Your task to perform on an android device: install app "Facebook Lite" Image 0: 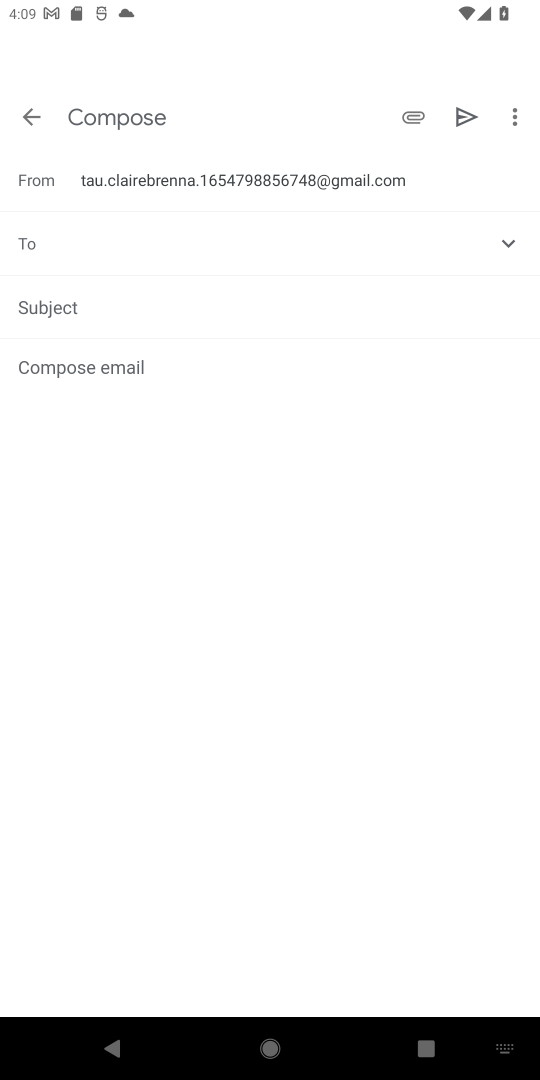
Step 0: press home button
Your task to perform on an android device: install app "Facebook Lite" Image 1: 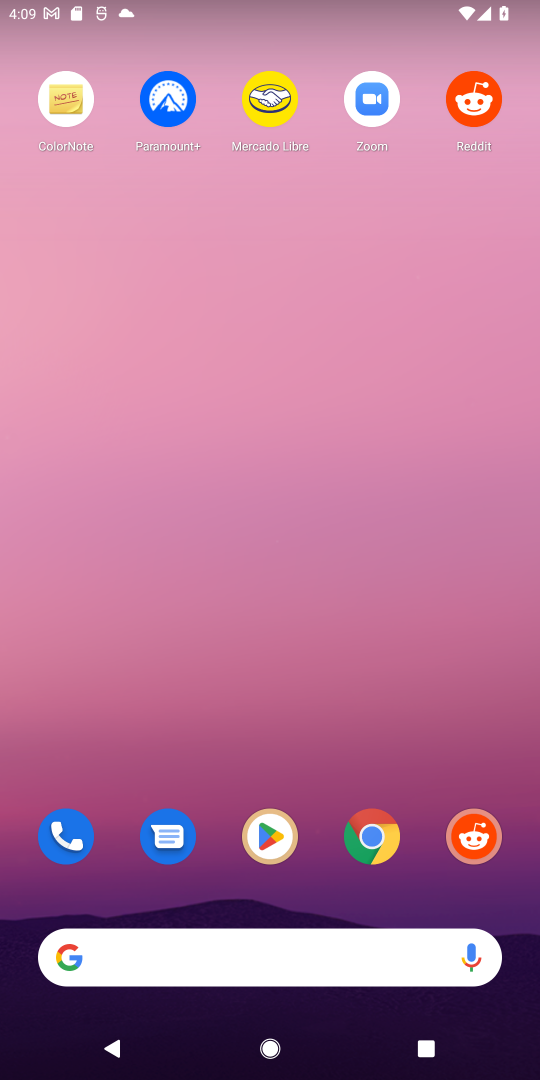
Step 1: drag from (224, 778) to (197, 214)
Your task to perform on an android device: install app "Facebook Lite" Image 2: 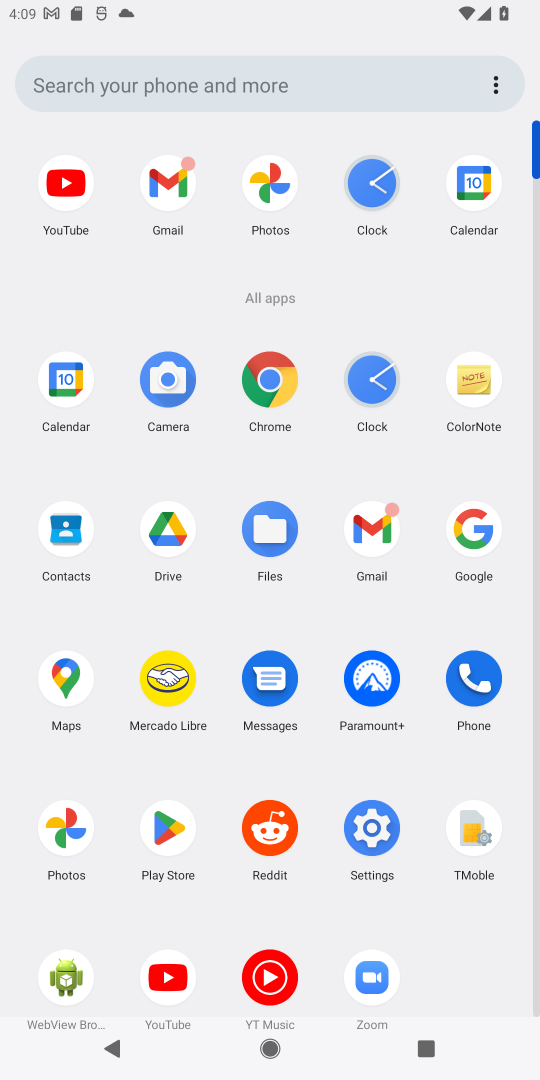
Step 2: click (153, 823)
Your task to perform on an android device: install app "Facebook Lite" Image 3: 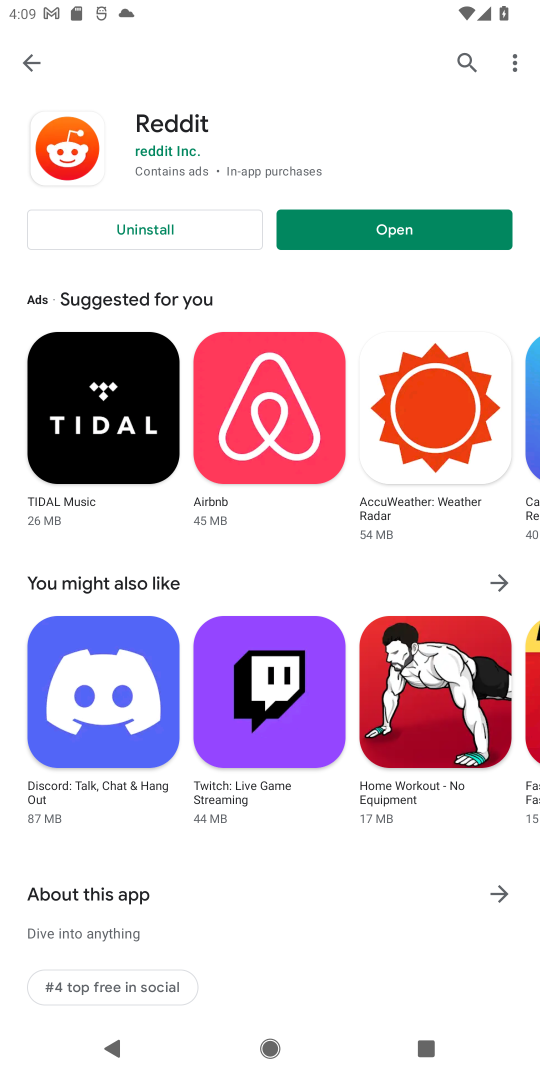
Step 3: click (22, 67)
Your task to perform on an android device: install app "Facebook Lite" Image 4: 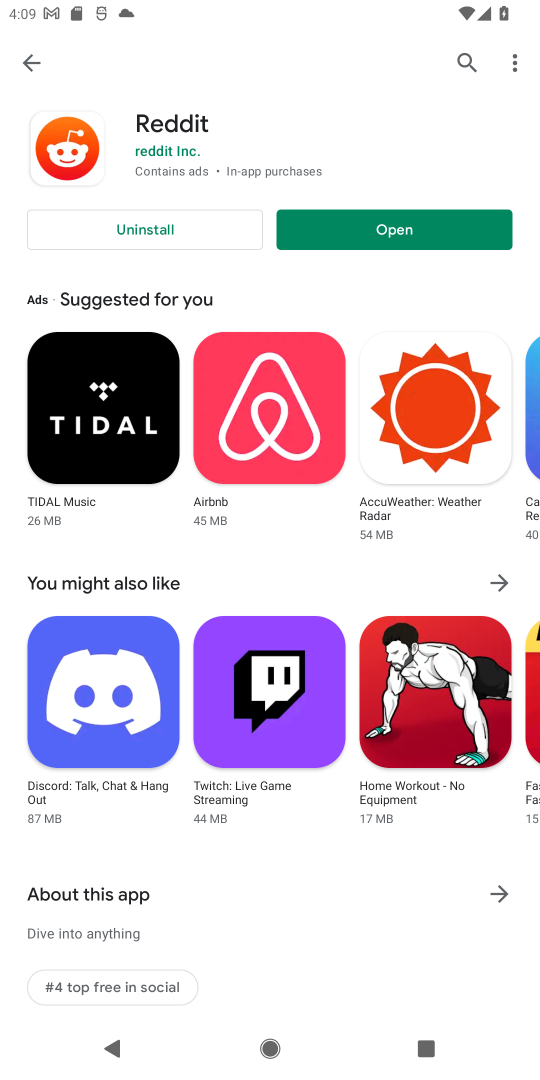
Step 4: click (22, 59)
Your task to perform on an android device: install app "Facebook Lite" Image 5: 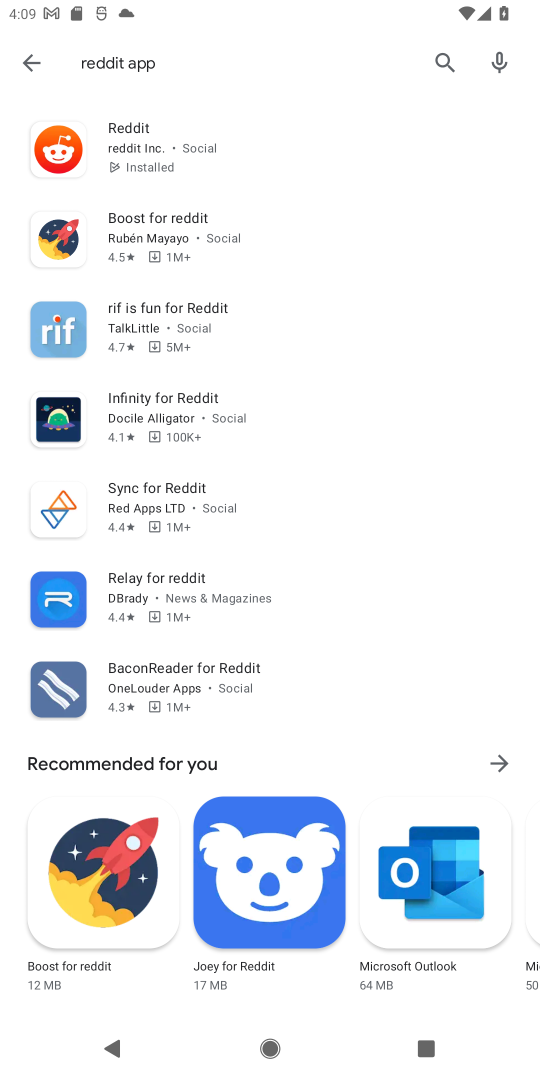
Step 5: click (34, 47)
Your task to perform on an android device: install app "Facebook Lite" Image 6: 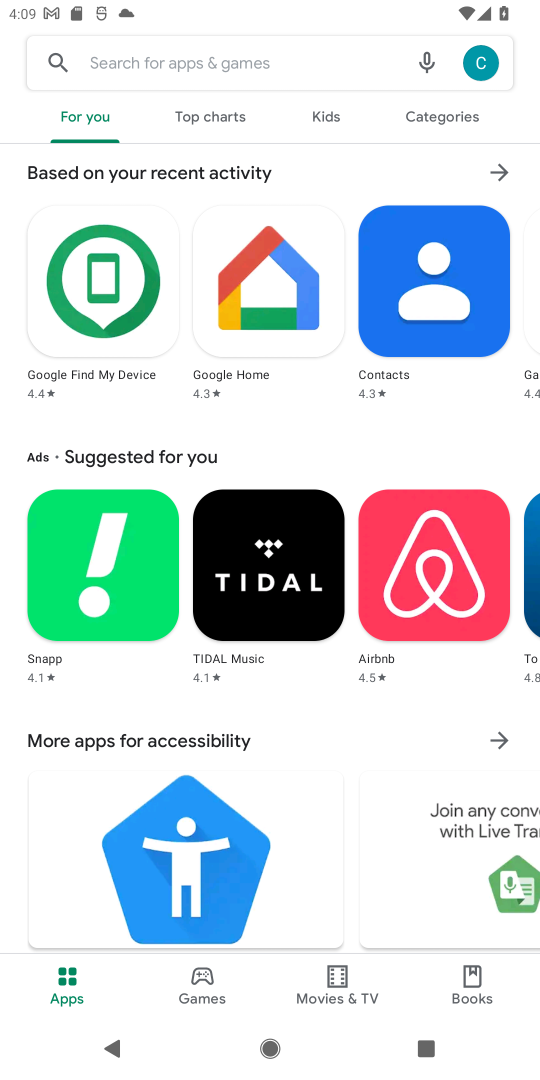
Step 6: click (176, 55)
Your task to perform on an android device: install app "Facebook Lite" Image 7: 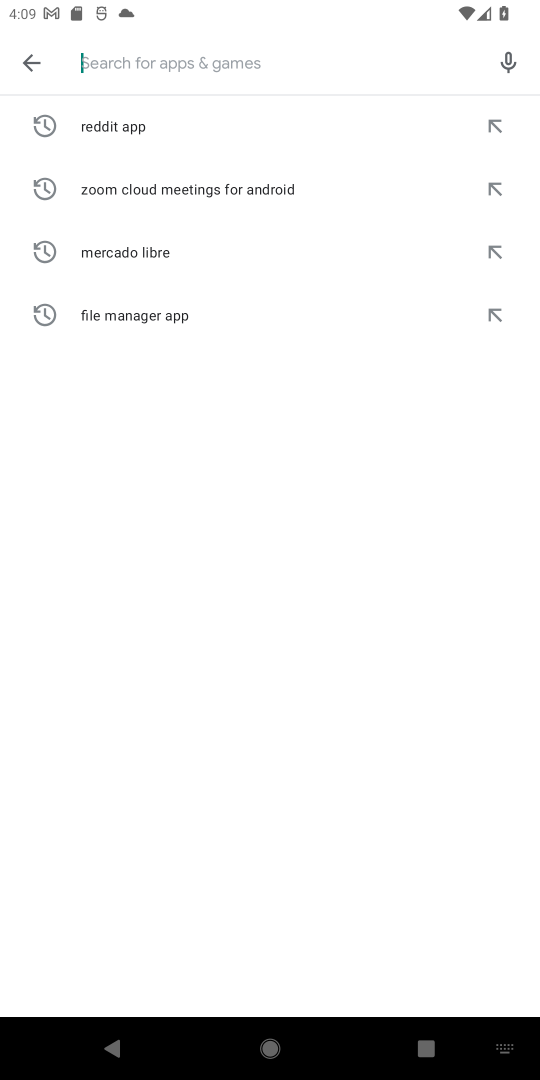
Step 7: click (195, 68)
Your task to perform on an android device: install app "Facebook Lite" Image 8: 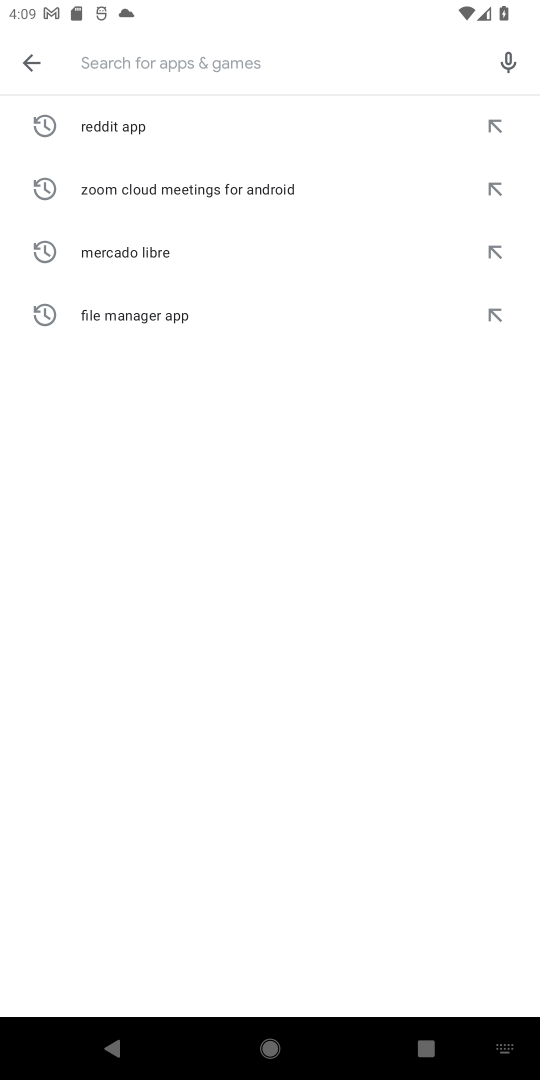
Step 8: type "Facebook Lite" "
Your task to perform on an android device: install app "Facebook Lite" Image 9: 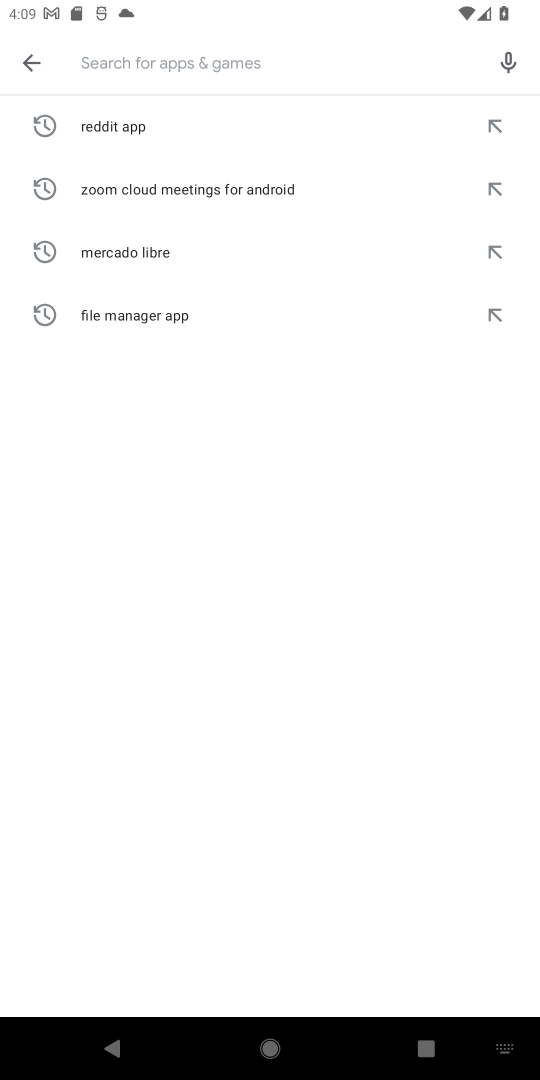
Step 9: click (208, 51)
Your task to perform on an android device: install app "Facebook Lite" Image 10: 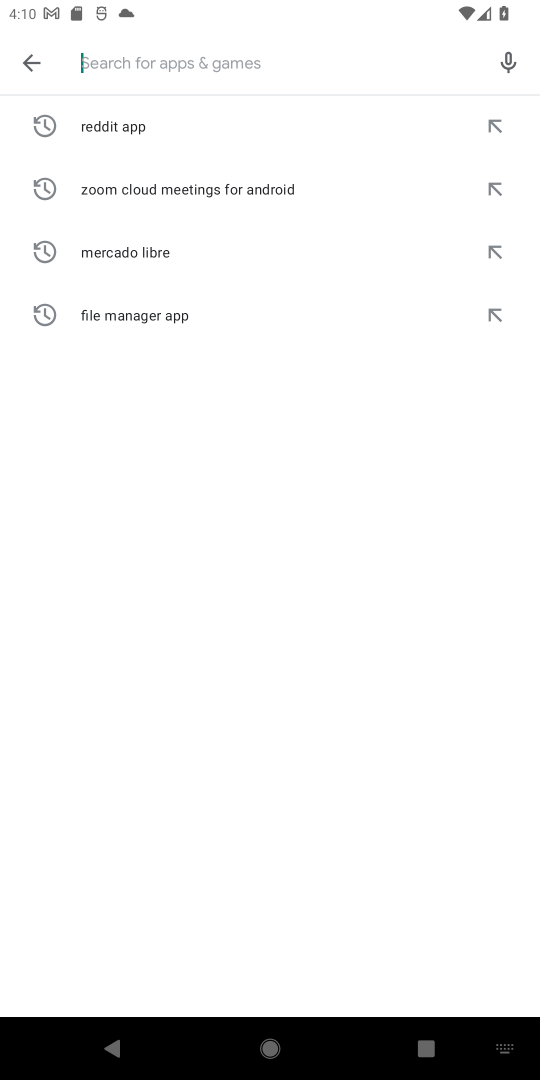
Step 10: type "facebooklite"
Your task to perform on an android device: install app "Facebook Lite" Image 11: 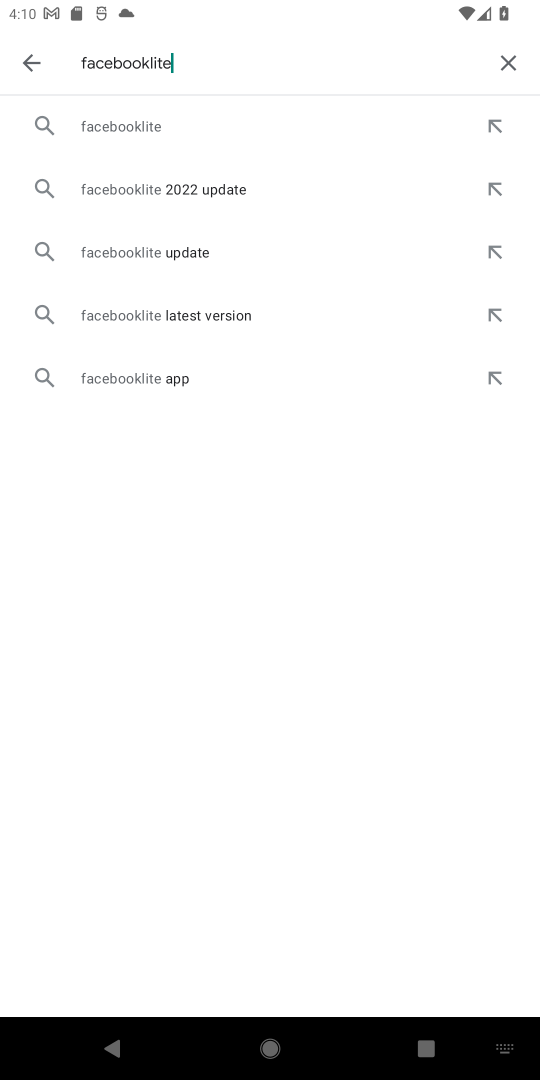
Step 11: click (137, 127)
Your task to perform on an android device: install app "Facebook Lite" Image 12: 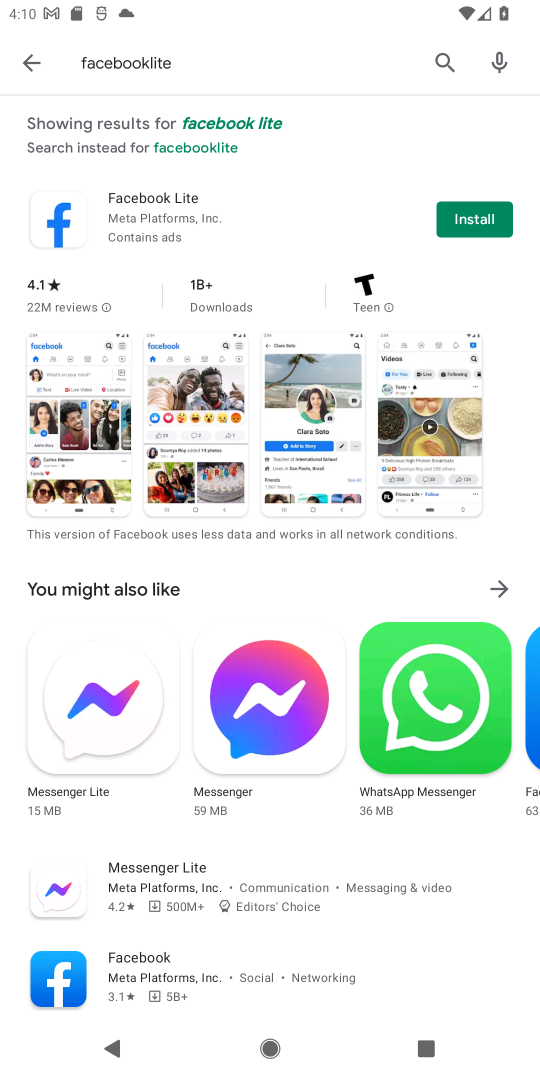
Step 12: click (478, 223)
Your task to perform on an android device: install app "Facebook Lite" Image 13: 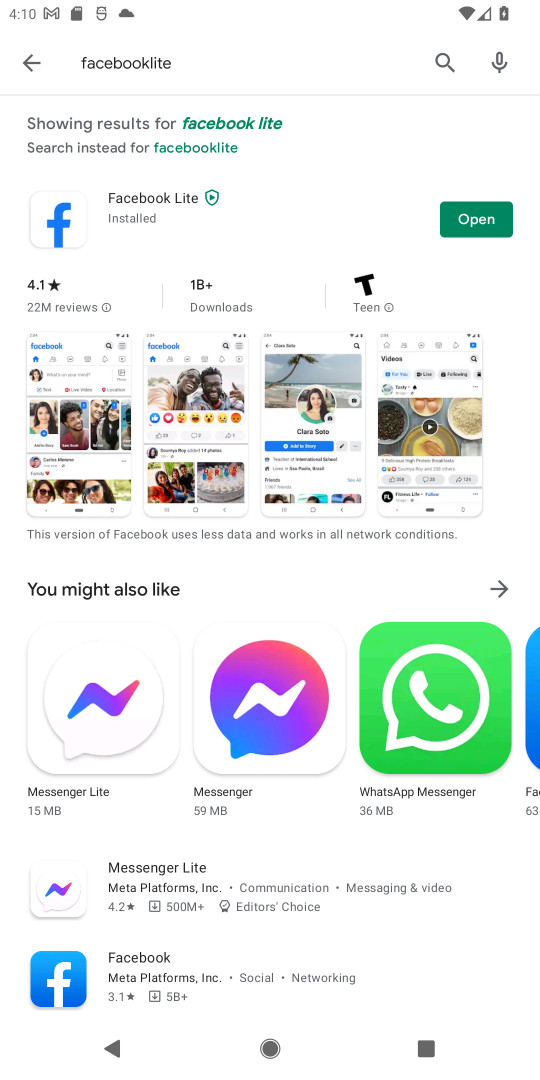
Step 13: click (478, 223)
Your task to perform on an android device: install app "Facebook Lite" Image 14: 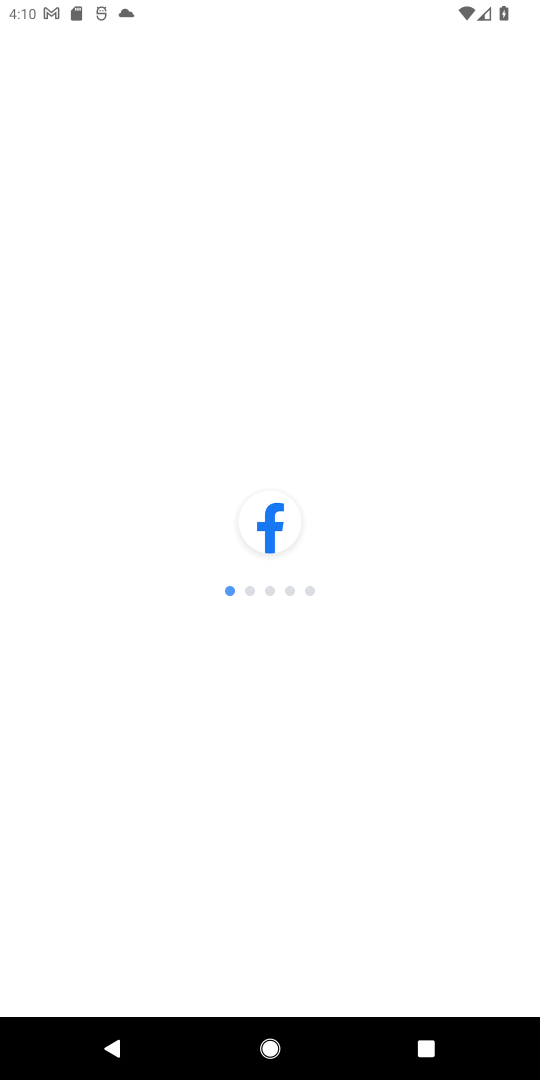
Step 14: task complete